Your task to perform on an android device: Open eBay Image 0: 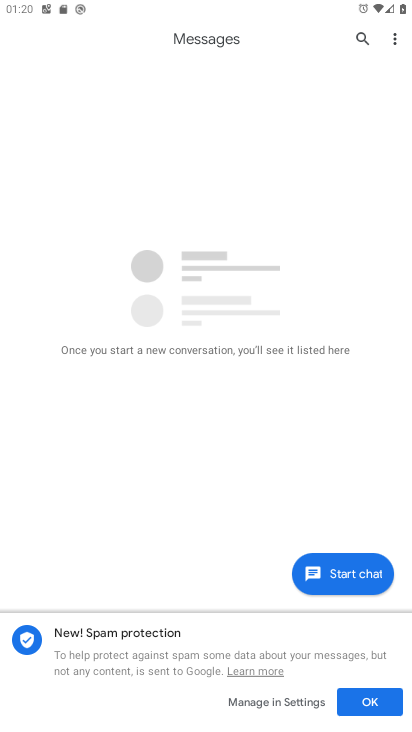
Step 0: press home button
Your task to perform on an android device: Open eBay Image 1: 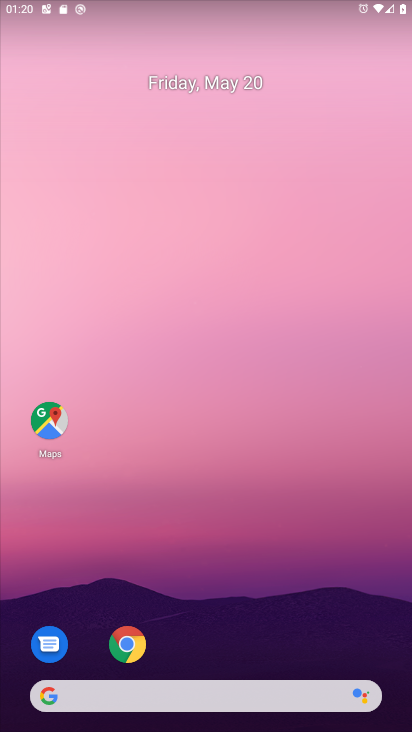
Step 1: drag from (194, 670) to (183, 190)
Your task to perform on an android device: Open eBay Image 2: 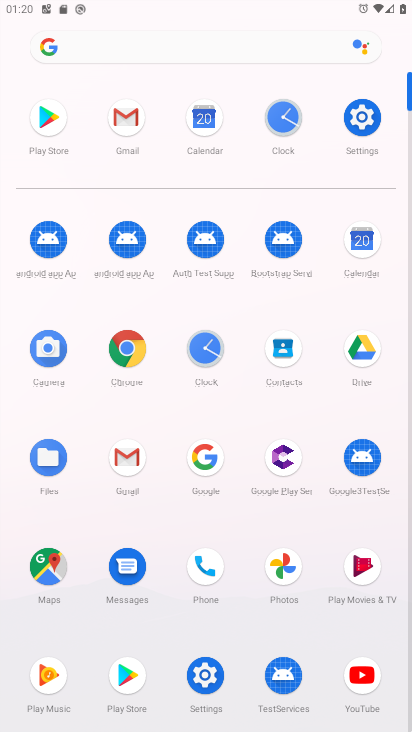
Step 2: click (210, 458)
Your task to perform on an android device: Open eBay Image 3: 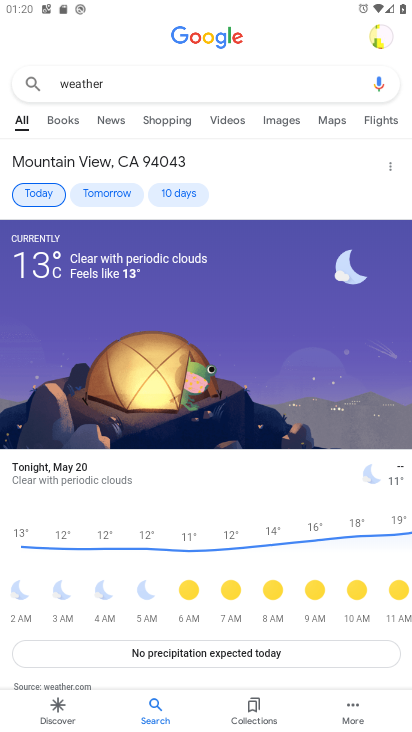
Step 3: click (142, 91)
Your task to perform on an android device: Open eBay Image 4: 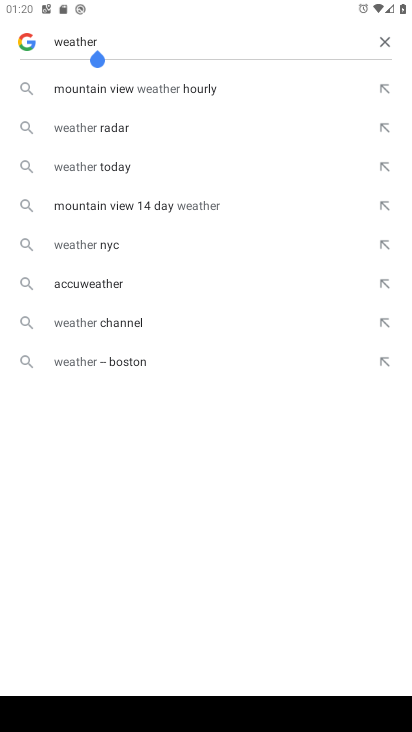
Step 4: click (380, 44)
Your task to perform on an android device: Open eBay Image 5: 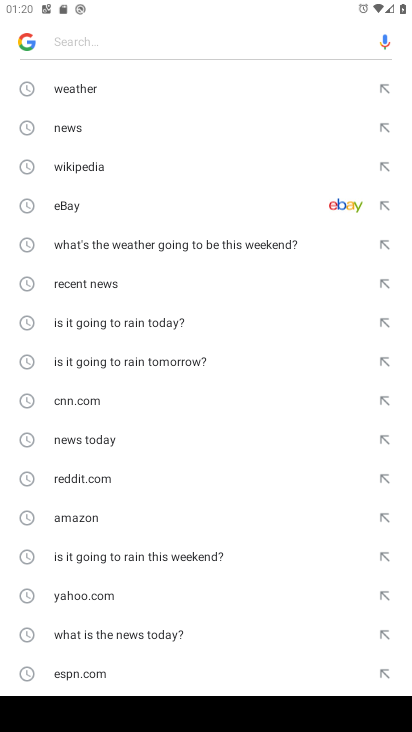
Step 5: click (319, 193)
Your task to perform on an android device: Open eBay Image 6: 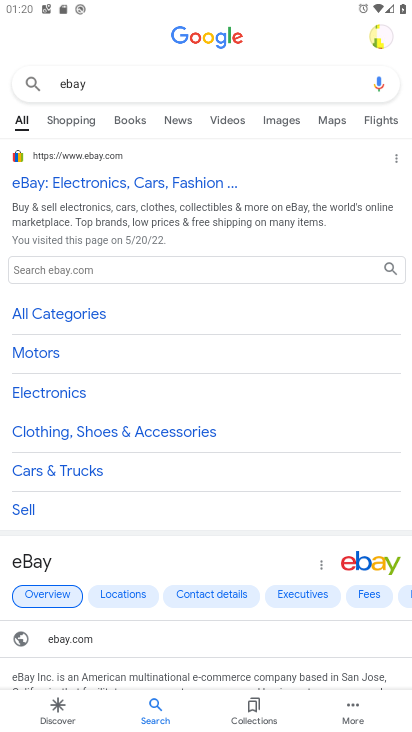
Step 6: drag from (187, 625) to (171, 206)
Your task to perform on an android device: Open eBay Image 7: 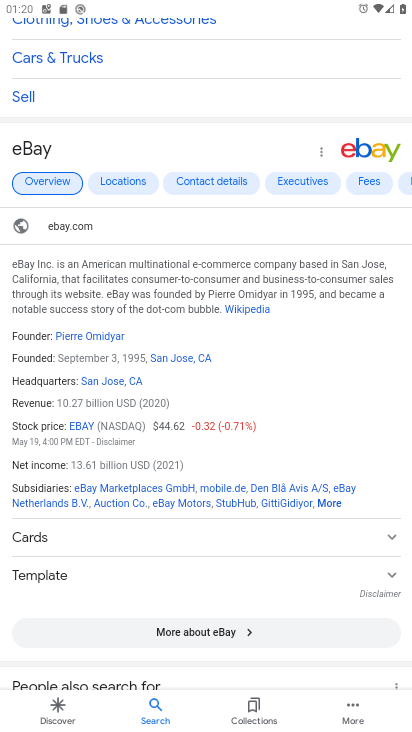
Step 7: drag from (153, 155) to (173, 598)
Your task to perform on an android device: Open eBay Image 8: 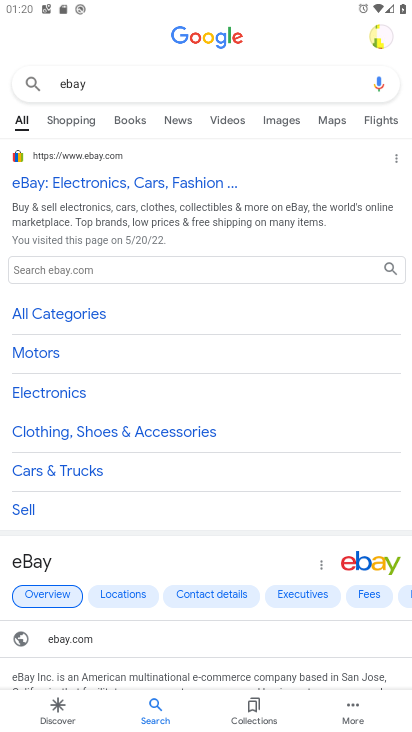
Step 8: click (112, 187)
Your task to perform on an android device: Open eBay Image 9: 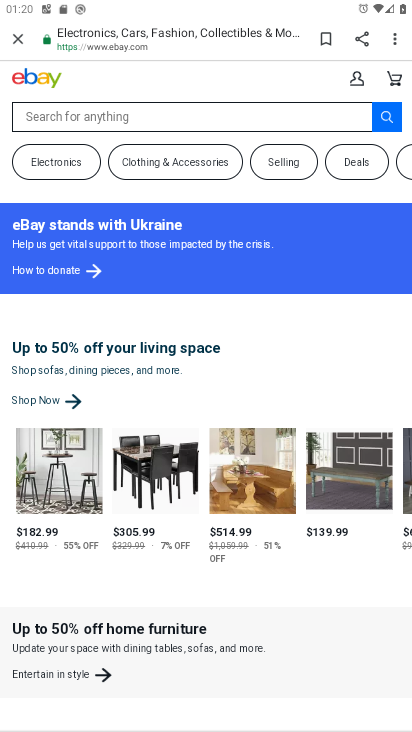
Step 9: task complete